Your task to perform on an android device: make emails show in primary in the gmail app Image 0: 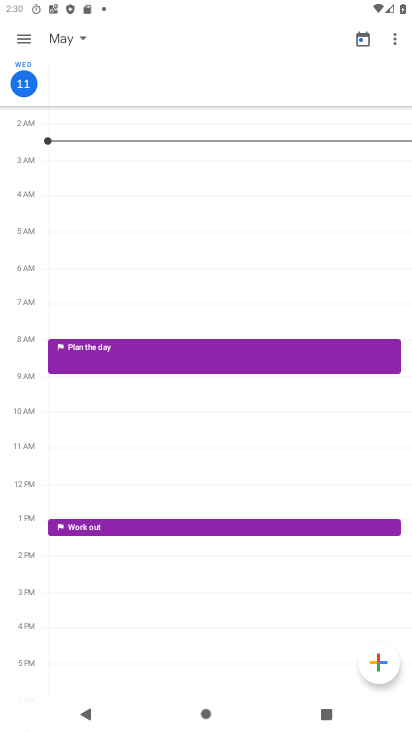
Step 0: press home button
Your task to perform on an android device: make emails show in primary in the gmail app Image 1: 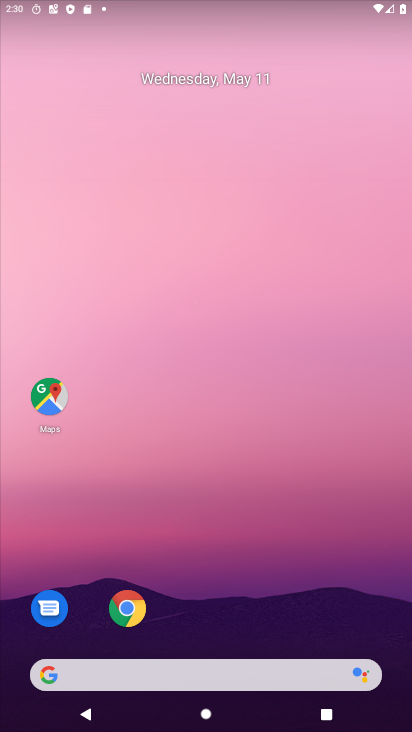
Step 1: drag from (272, 636) to (301, 218)
Your task to perform on an android device: make emails show in primary in the gmail app Image 2: 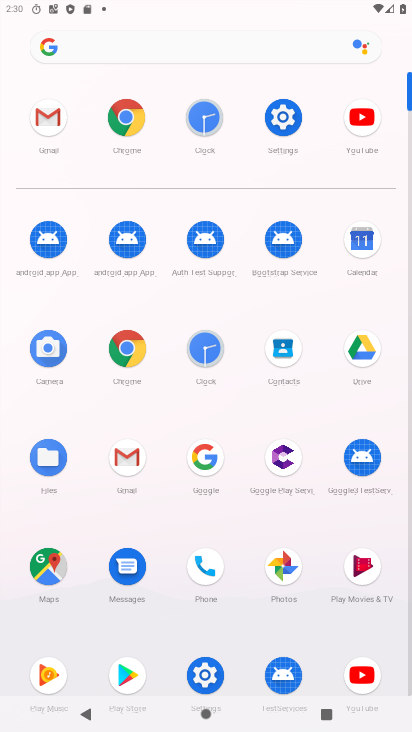
Step 2: click (126, 467)
Your task to perform on an android device: make emails show in primary in the gmail app Image 3: 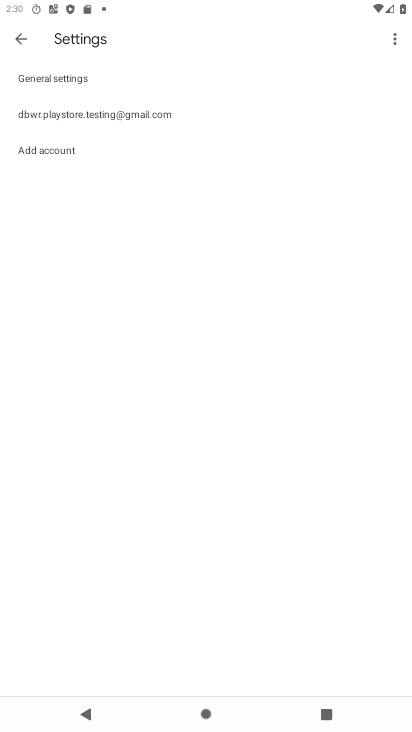
Step 3: click (113, 116)
Your task to perform on an android device: make emails show in primary in the gmail app Image 4: 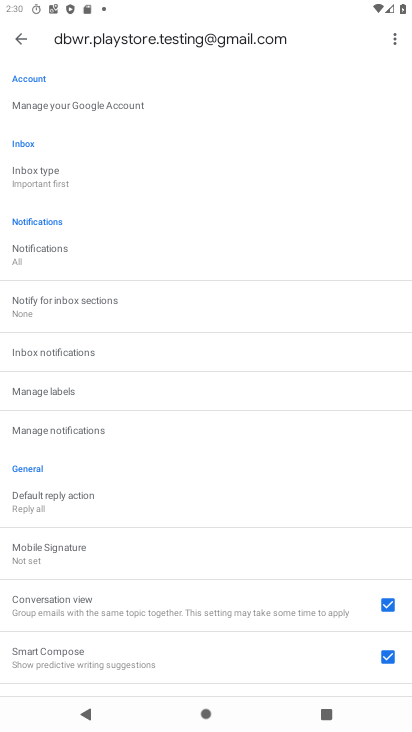
Step 4: drag from (207, 183) to (207, 311)
Your task to perform on an android device: make emails show in primary in the gmail app Image 5: 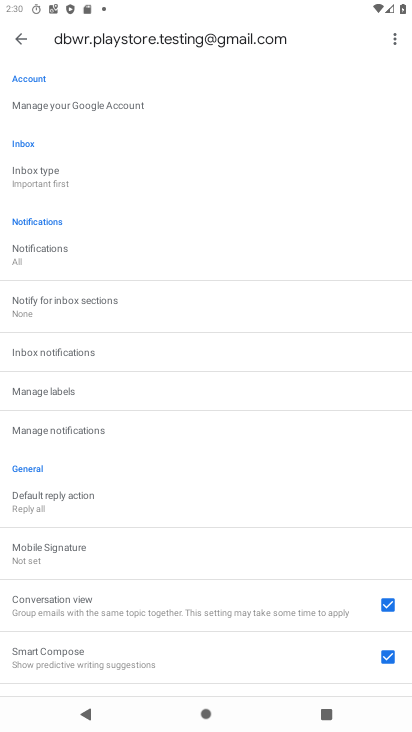
Step 5: click (51, 176)
Your task to perform on an android device: make emails show in primary in the gmail app Image 6: 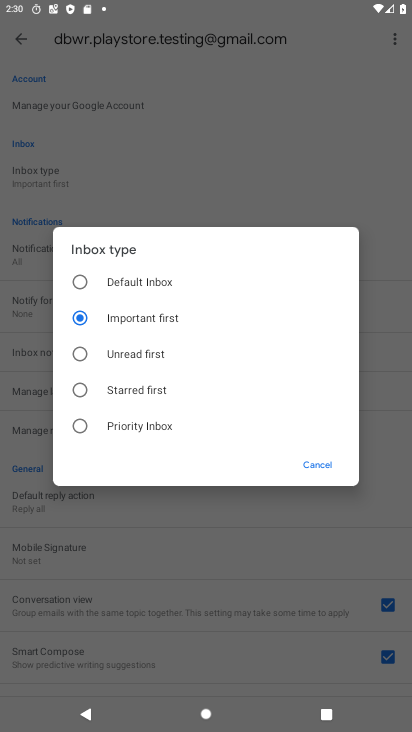
Step 6: click (78, 270)
Your task to perform on an android device: make emails show in primary in the gmail app Image 7: 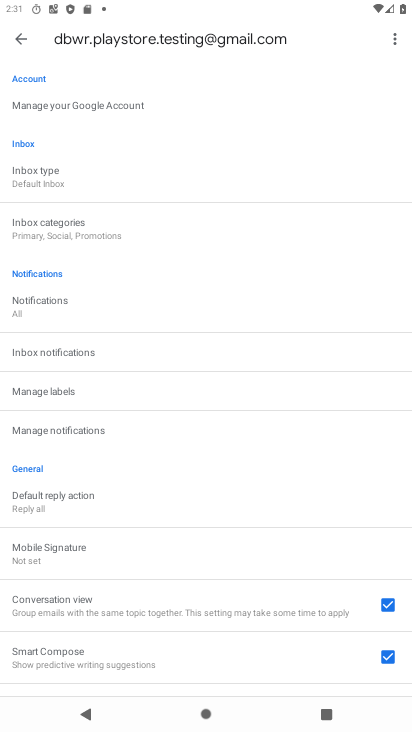
Step 7: click (91, 229)
Your task to perform on an android device: make emails show in primary in the gmail app Image 8: 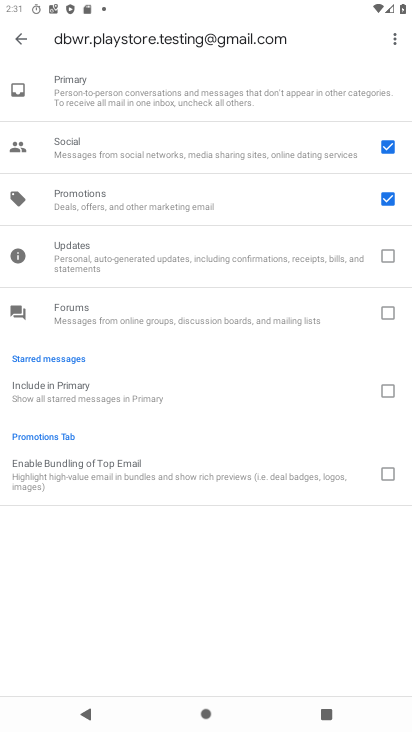
Step 8: click (385, 196)
Your task to perform on an android device: make emails show in primary in the gmail app Image 9: 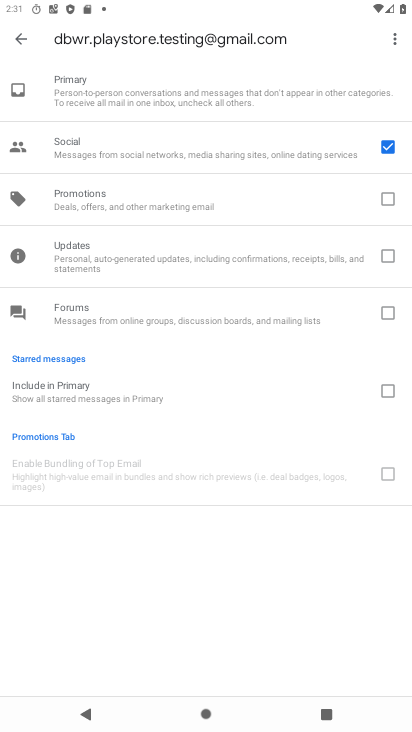
Step 9: click (385, 143)
Your task to perform on an android device: make emails show in primary in the gmail app Image 10: 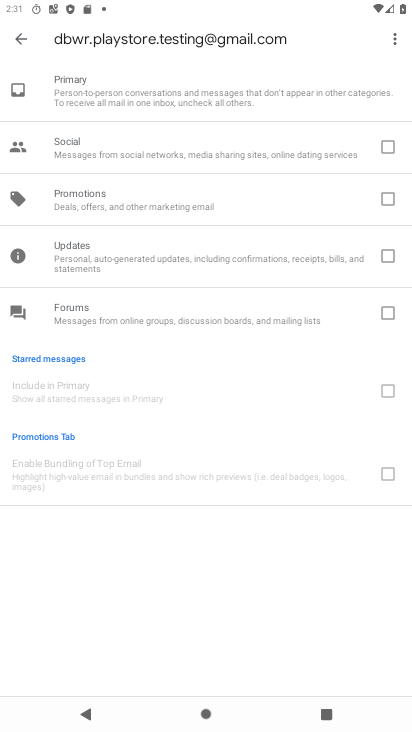
Step 10: task complete